Your task to perform on an android device: turn off data saver in the chrome app Image 0: 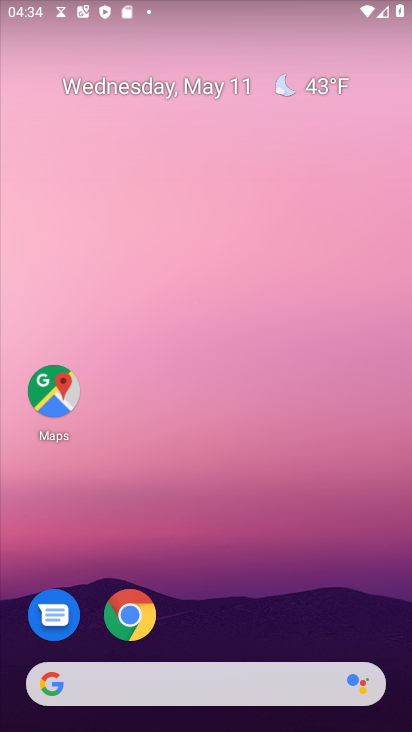
Step 0: drag from (192, 637) to (155, 2)
Your task to perform on an android device: turn off data saver in the chrome app Image 1: 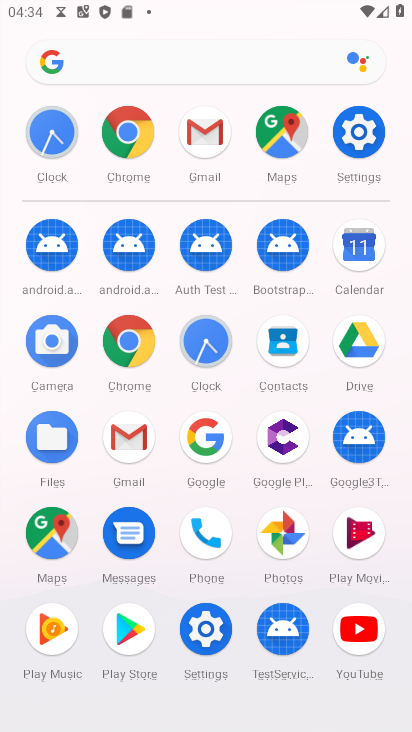
Step 1: drag from (15, 550) to (28, 186)
Your task to perform on an android device: turn off data saver in the chrome app Image 2: 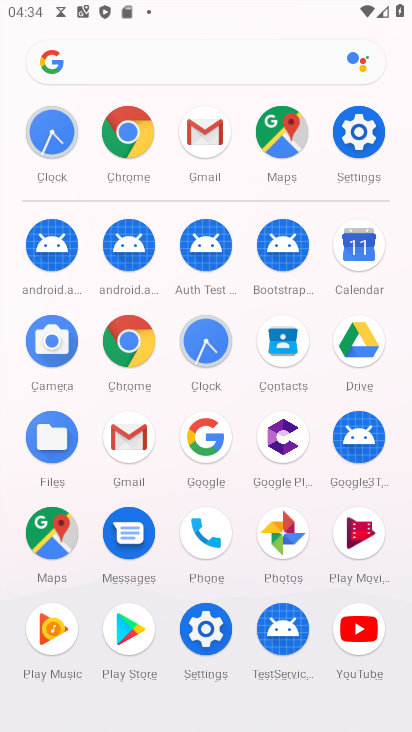
Step 2: click (129, 338)
Your task to perform on an android device: turn off data saver in the chrome app Image 3: 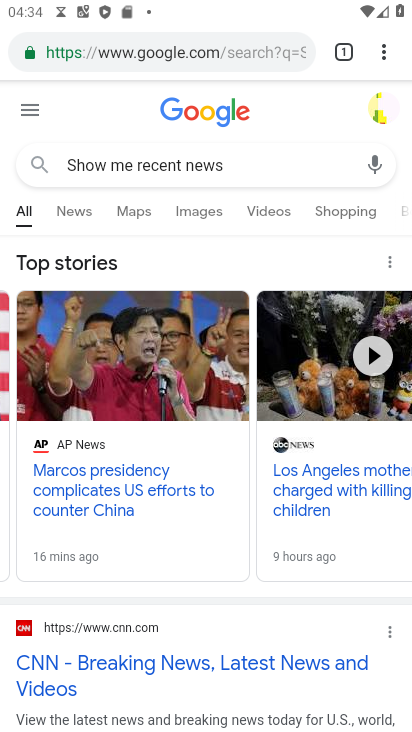
Step 3: drag from (378, 57) to (234, 572)
Your task to perform on an android device: turn off data saver in the chrome app Image 4: 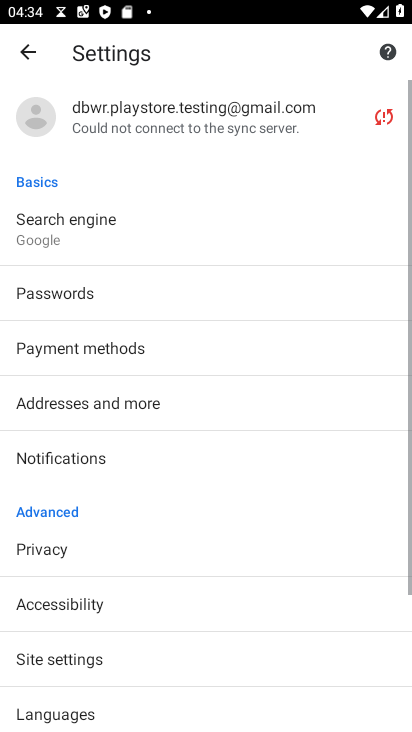
Step 4: drag from (234, 573) to (206, 114)
Your task to perform on an android device: turn off data saver in the chrome app Image 5: 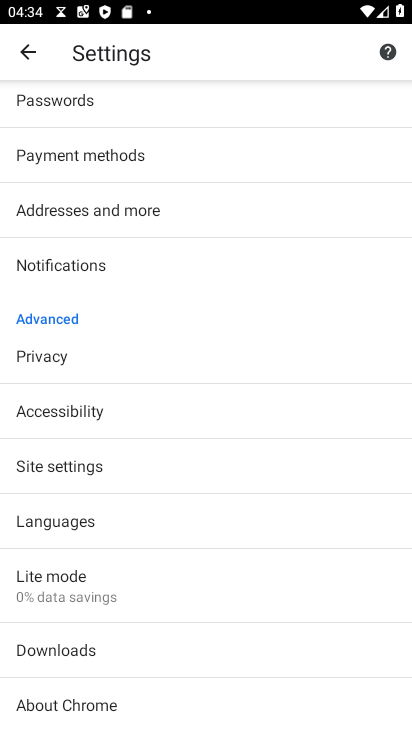
Step 5: drag from (236, 562) to (209, 194)
Your task to perform on an android device: turn off data saver in the chrome app Image 6: 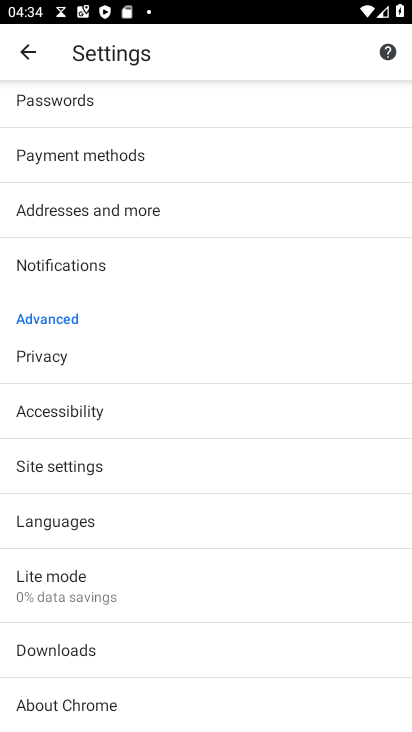
Step 6: click (163, 592)
Your task to perform on an android device: turn off data saver in the chrome app Image 7: 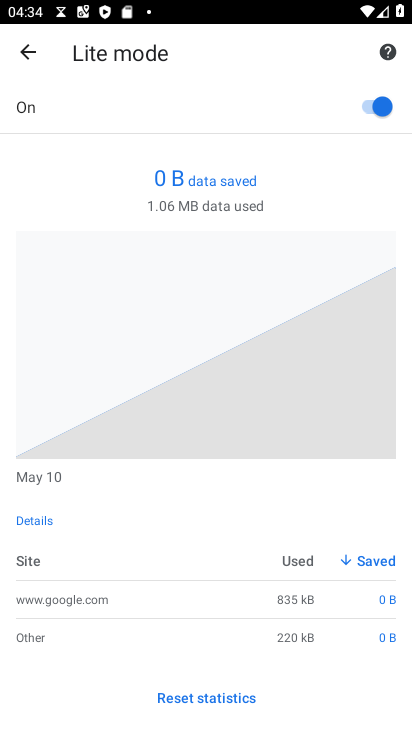
Step 7: click (371, 94)
Your task to perform on an android device: turn off data saver in the chrome app Image 8: 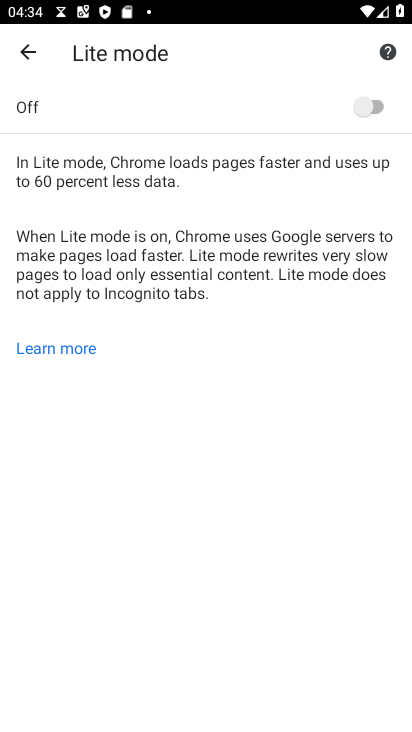
Step 8: task complete